Your task to perform on an android device: toggle translation in the chrome app Image 0: 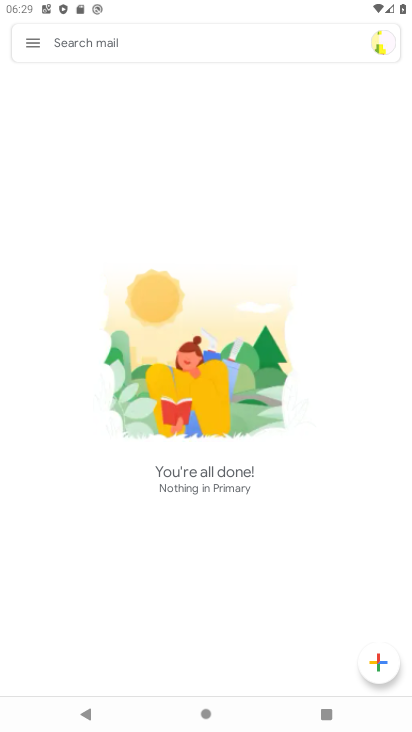
Step 0: press home button
Your task to perform on an android device: toggle translation in the chrome app Image 1: 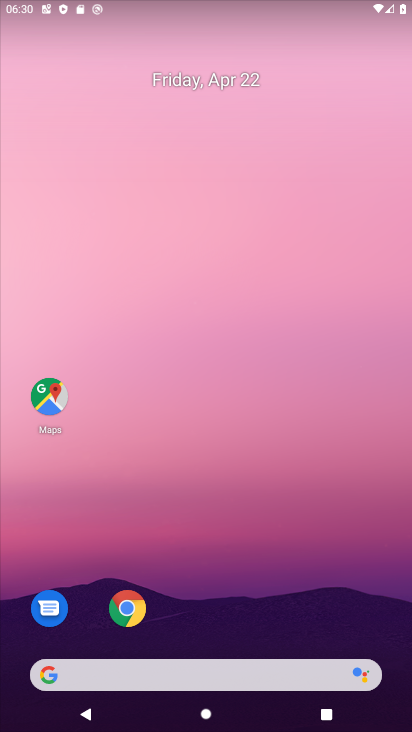
Step 1: click (134, 612)
Your task to perform on an android device: toggle translation in the chrome app Image 2: 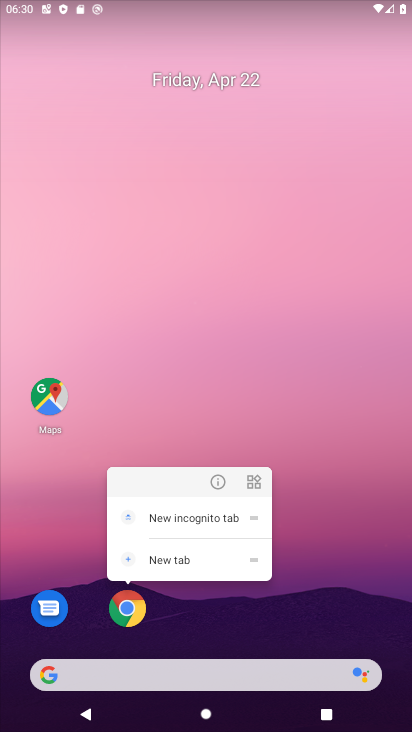
Step 2: click (124, 609)
Your task to perform on an android device: toggle translation in the chrome app Image 3: 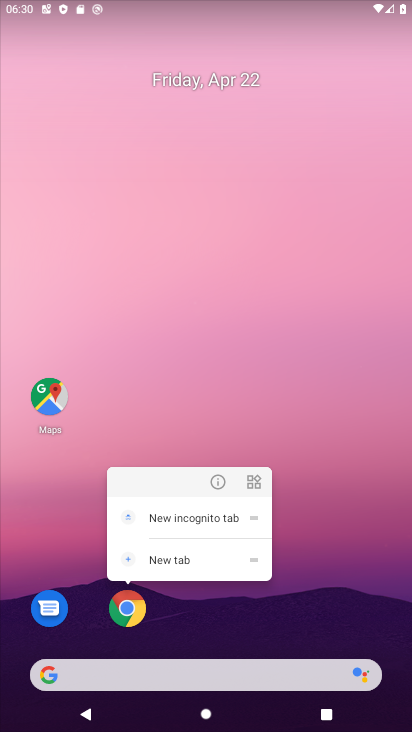
Step 3: click (129, 610)
Your task to perform on an android device: toggle translation in the chrome app Image 4: 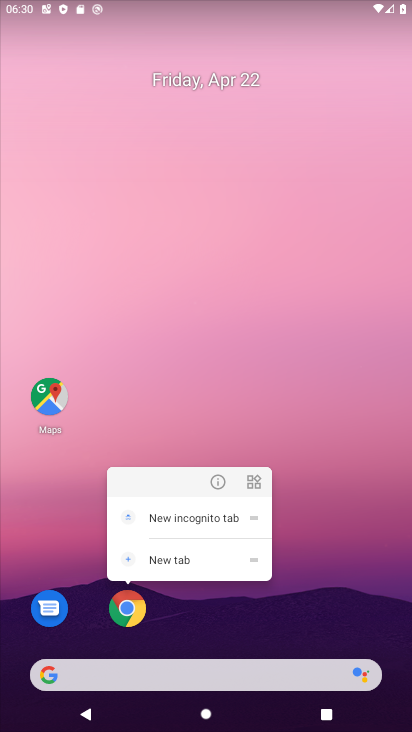
Step 4: click (128, 608)
Your task to perform on an android device: toggle translation in the chrome app Image 5: 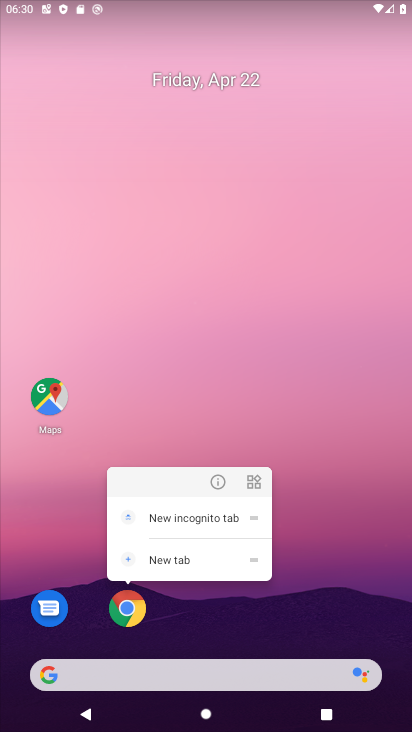
Step 5: click (138, 619)
Your task to perform on an android device: toggle translation in the chrome app Image 6: 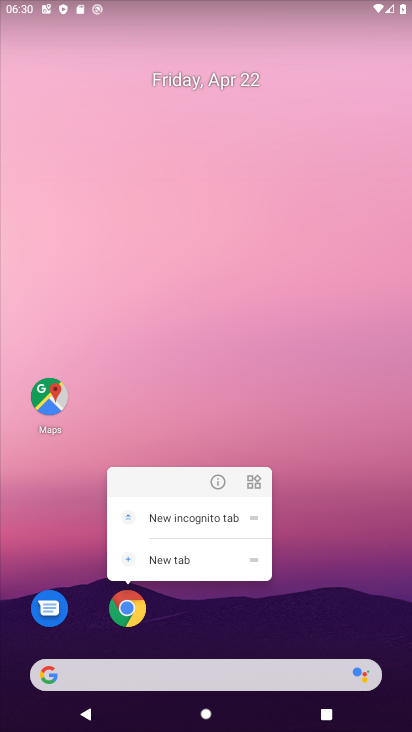
Step 6: click (120, 616)
Your task to perform on an android device: toggle translation in the chrome app Image 7: 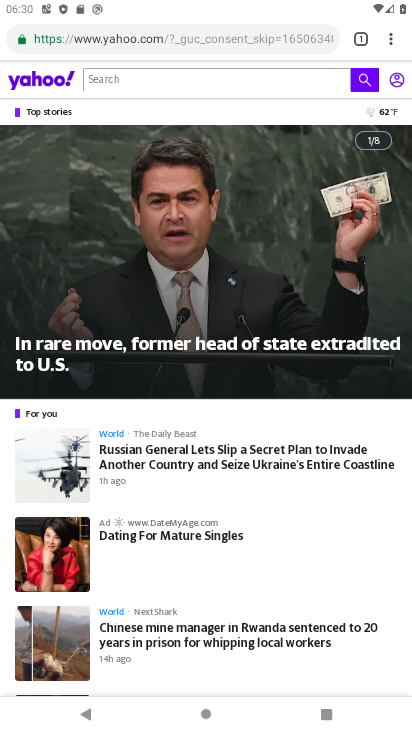
Step 7: click (390, 35)
Your task to perform on an android device: toggle translation in the chrome app Image 8: 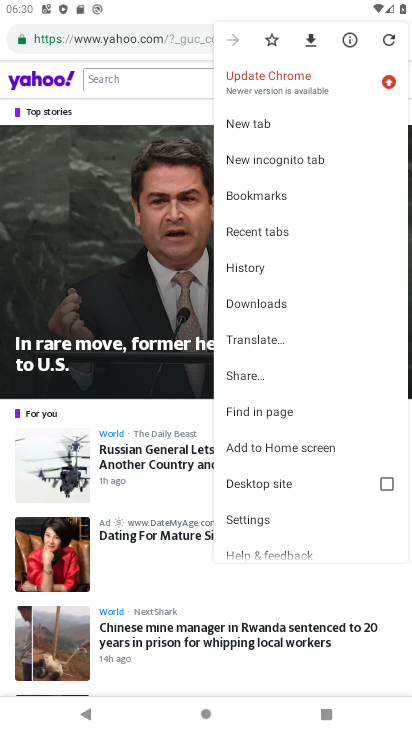
Step 8: click (253, 512)
Your task to perform on an android device: toggle translation in the chrome app Image 9: 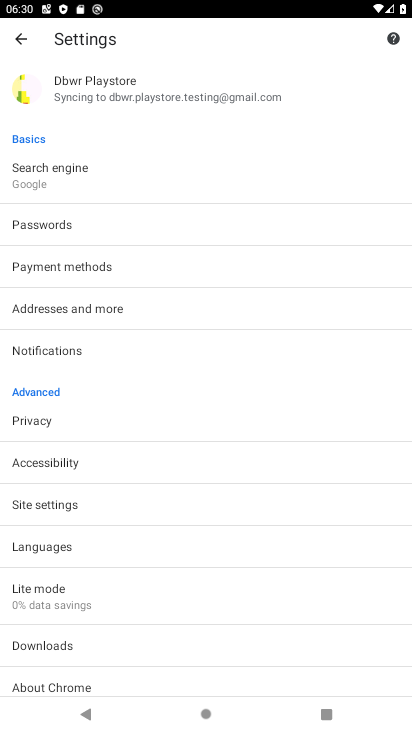
Step 9: click (60, 544)
Your task to perform on an android device: toggle translation in the chrome app Image 10: 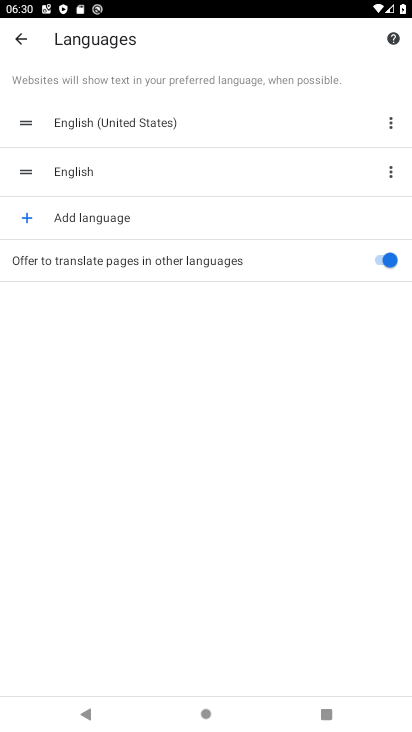
Step 10: click (385, 255)
Your task to perform on an android device: toggle translation in the chrome app Image 11: 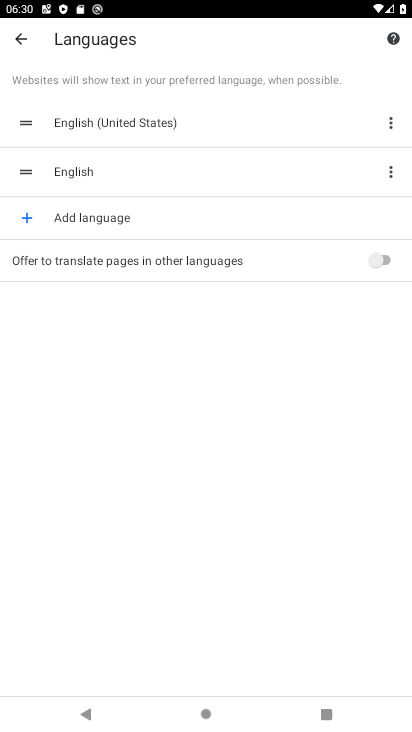
Step 11: task complete